Your task to perform on an android device: toggle translation in the chrome app Image 0: 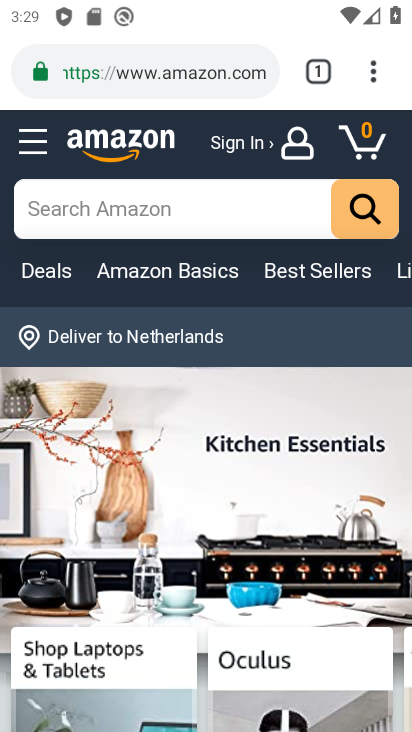
Step 0: click (373, 66)
Your task to perform on an android device: toggle translation in the chrome app Image 1: 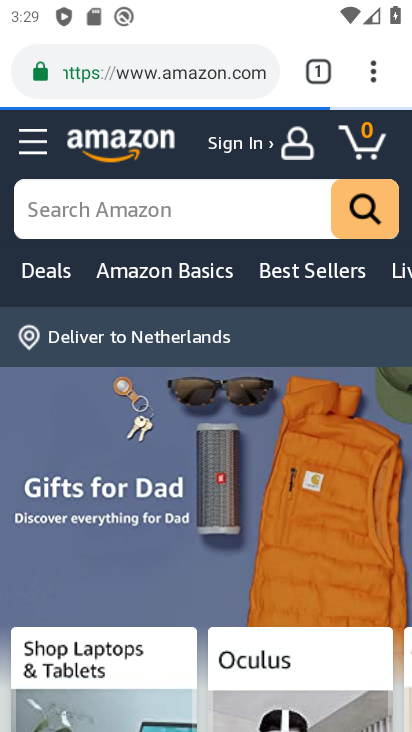
Step 1: click (361, 86)
Your task to perform on an android device: toggle translation in the chrome app Image 2: 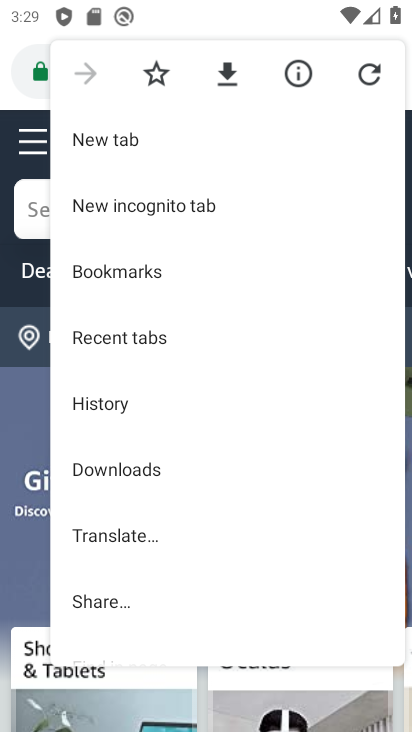
Step 2: drag from (164, 563) to (160, 220)
Your task to perform on an android device: toggle translation in the chrome app Image 3: 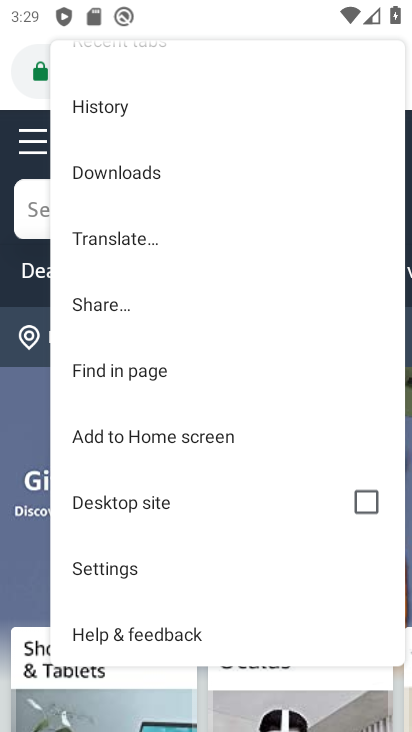
Step 3: click (124, 561)
Your task to perform on an android device: toggle translation in the chrome app Image 4: 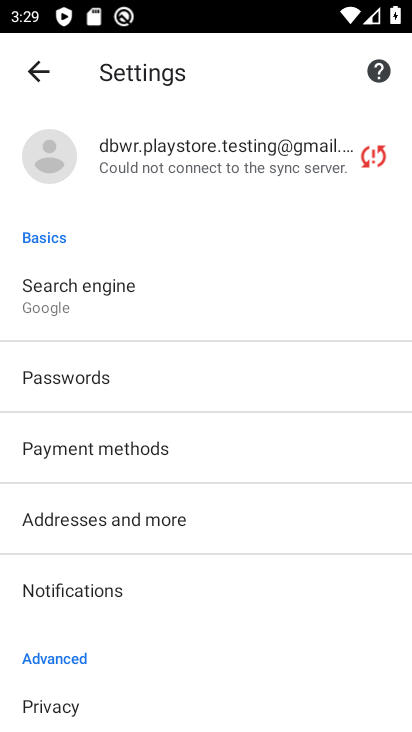
Step 4: drag from (75, 655) to (51, 288)
Your task to perform on an android device: toggle translation in the chrome app Image 5: 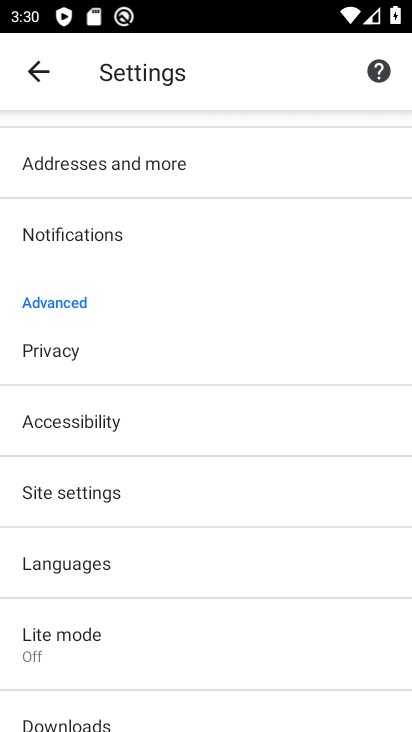
Step 5: click (53, 578)
Your task to perform on an android device: toggle translation in the chrome app Image 6: 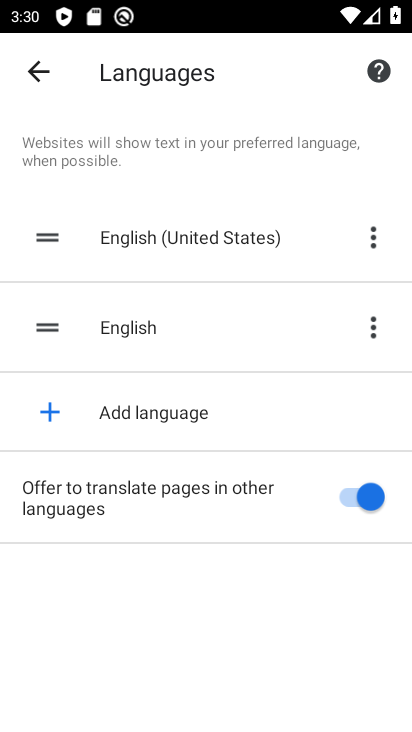
Step 6: task complete